Your task to perform on an android device: see sites visited before in the chrome app Image 0: 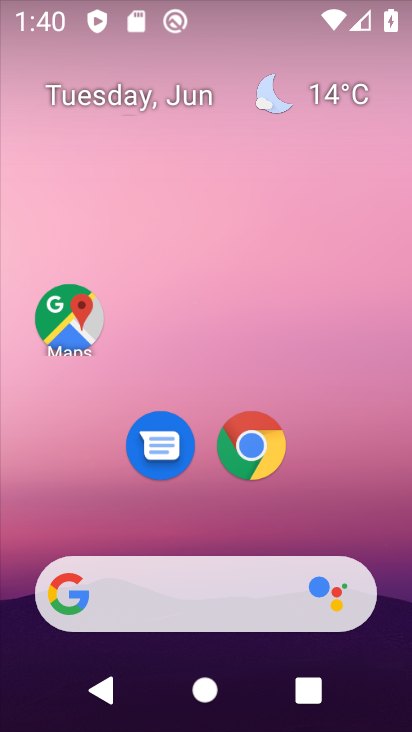
Step 0: press home button
Your task to perform on an android device: see sites visited before in the chrome app Image 1: 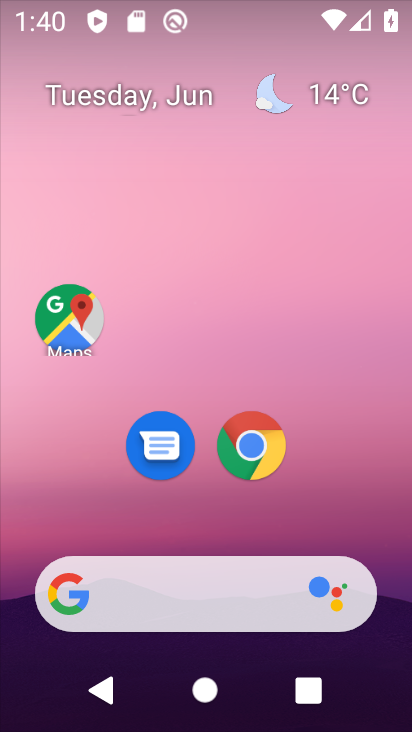
Step 1: drag from (341, 493) to (336, 159)
Your task to perform on an android device: see sites visited before in the chrome app Image 2: 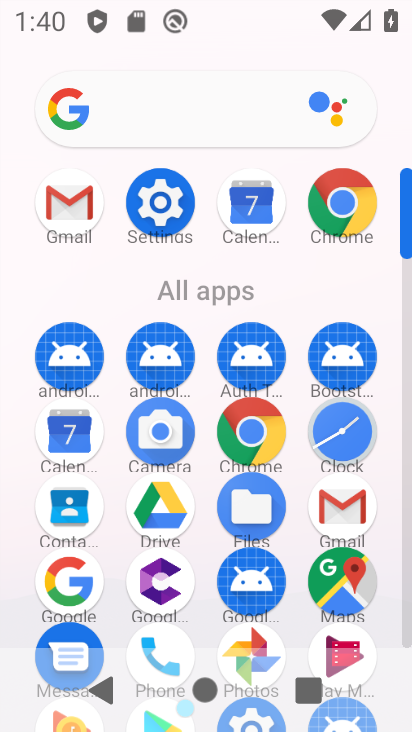
Step 2: click (241, 441)
Your task to perform on an android device: see sites visited before in the chrome app Image 3: 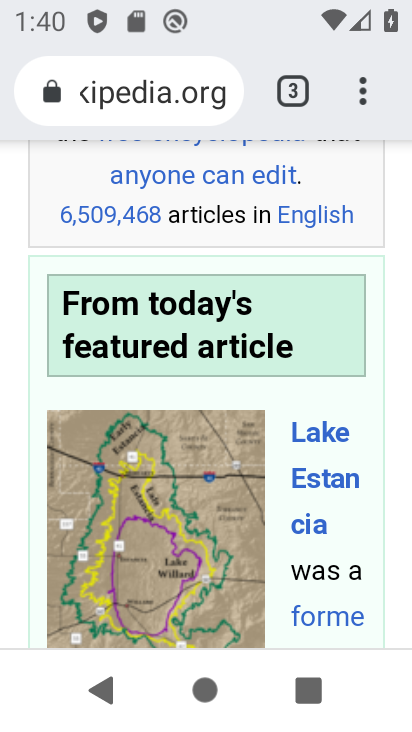
Step 3: task complete